Your task to perform on an android device: choose inbox layout in the gmail app Image 0: 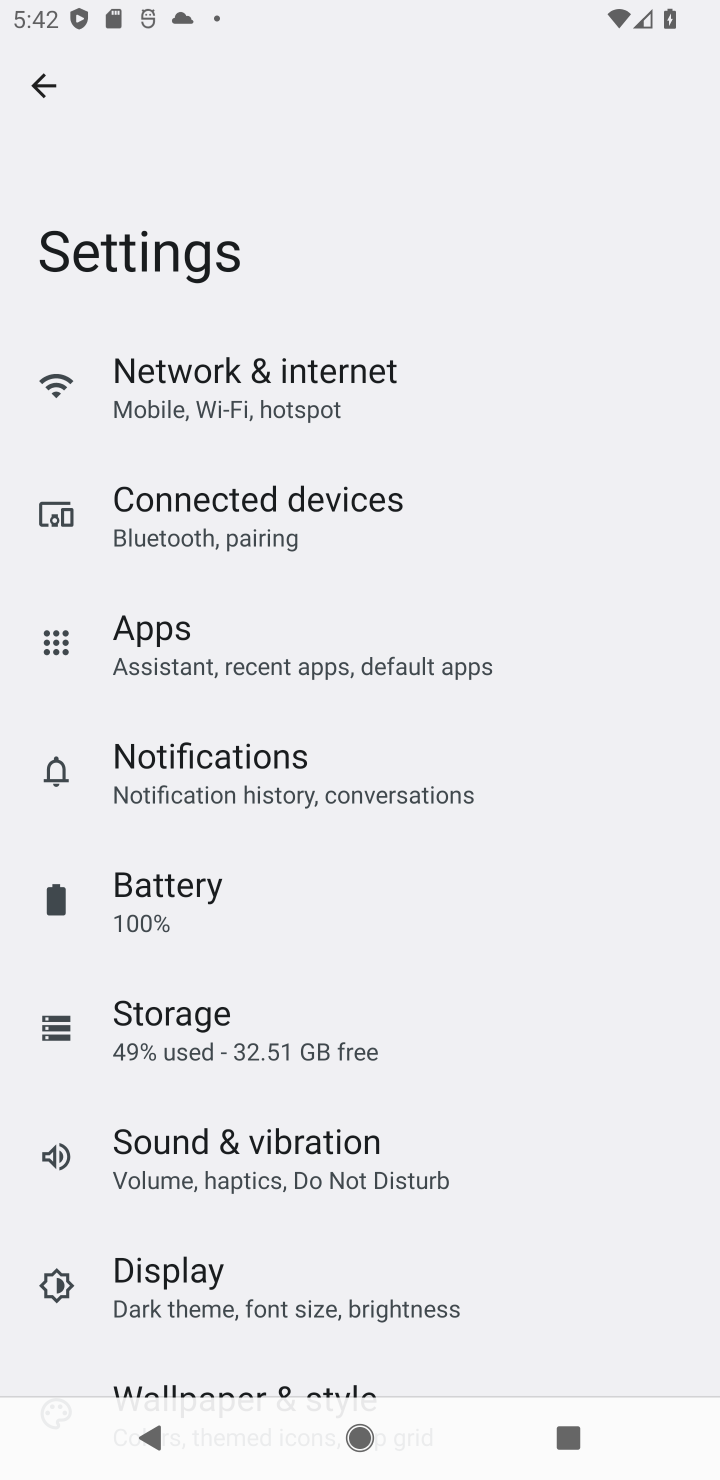
Step 0: press home button
Your task to perform on an android device: choose inbox layout in the gmail app Image 1: 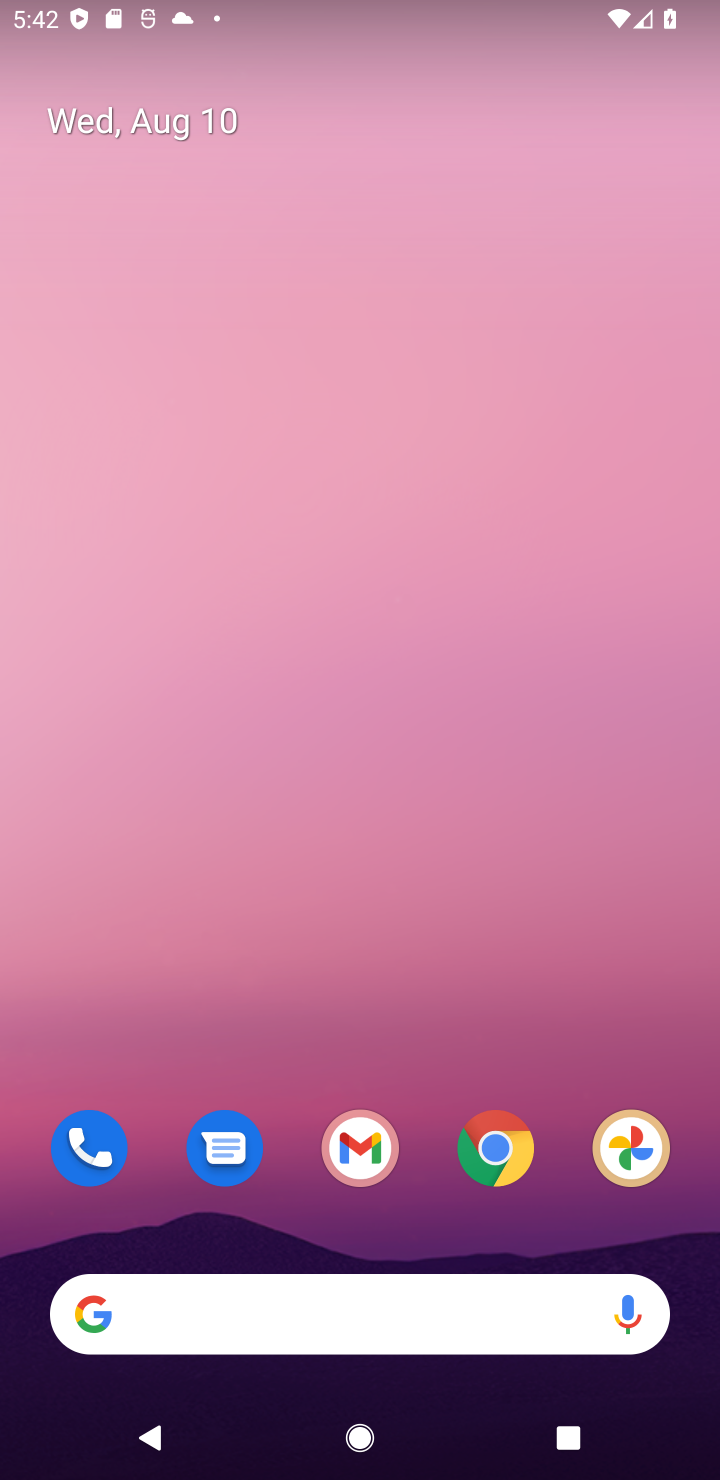
Step 1: click (344, 1141)
Your task to perform on an android device: choose inbox layout in the gmail app Image 2: 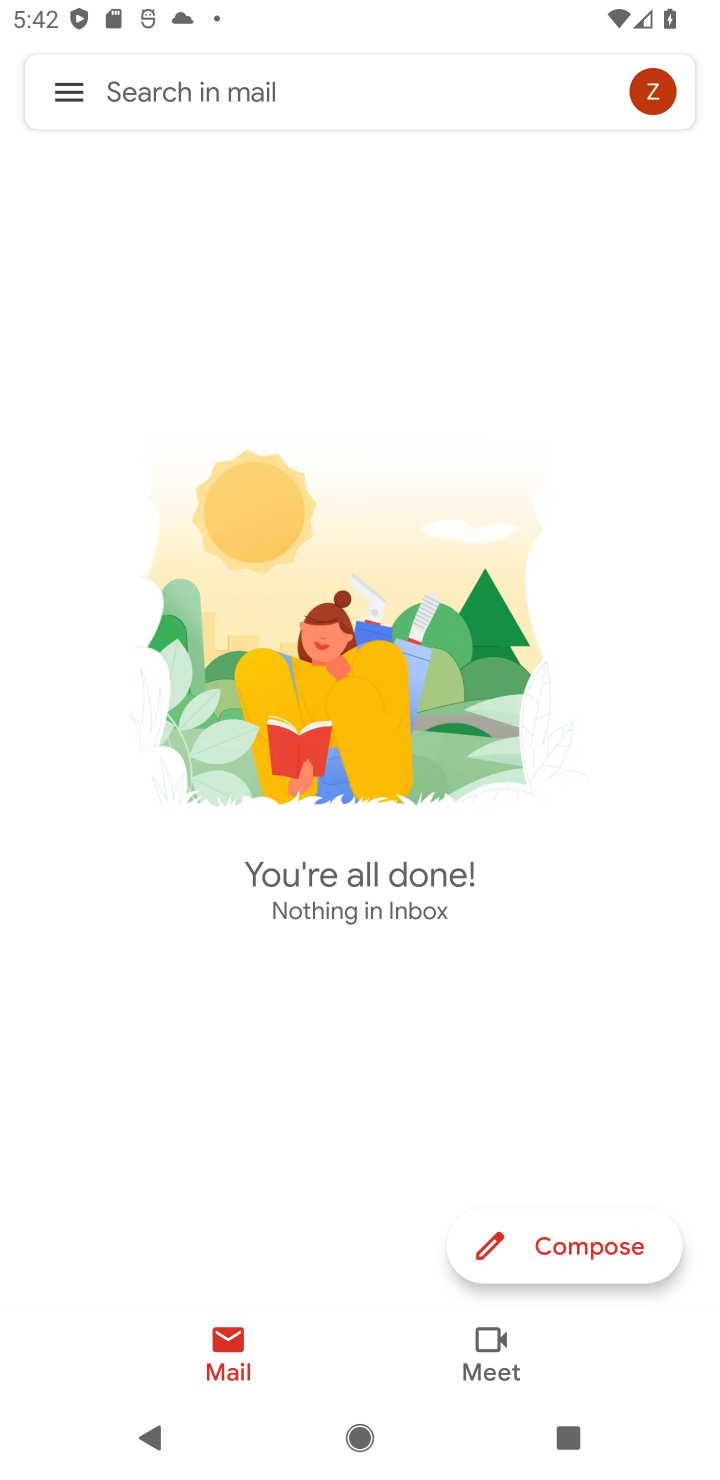
Step 2: click (56, 96)
Your task to perform on an android device: choose inbox layout in the gmail app Image 3: 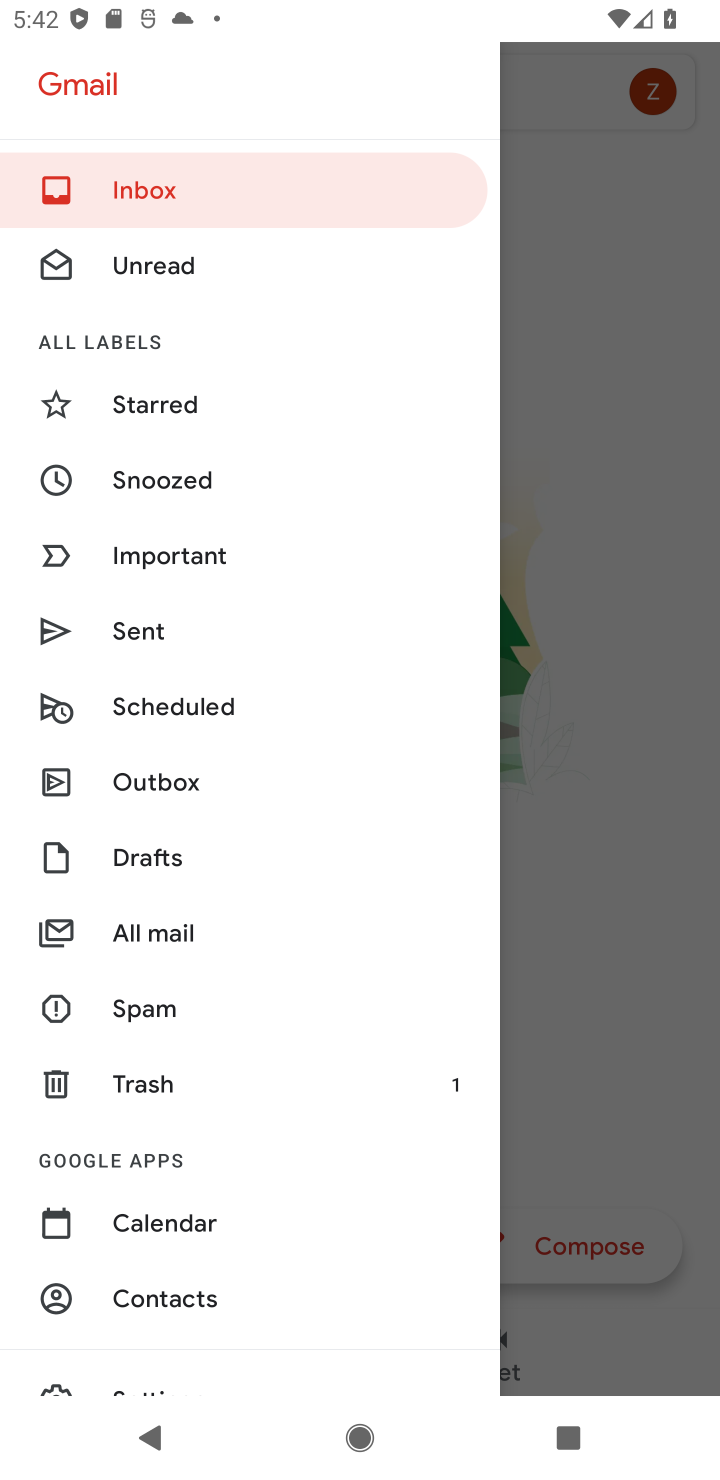
Step 3: click (117, 193)
Your task to perform on an android device: choose inbox layout in the gmail app Image 4: 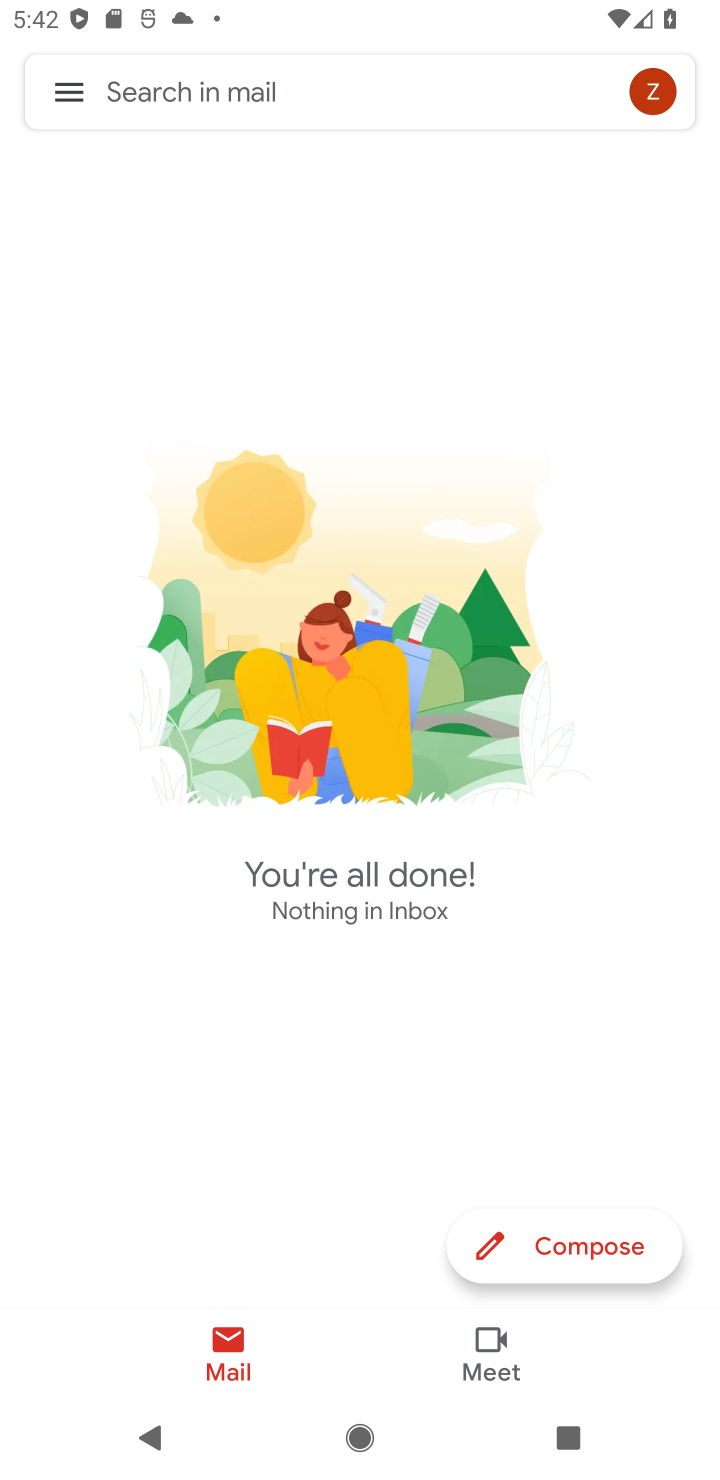
Step 4: task complete